Your task to perform on an android device: Open CNN.com Image 0: 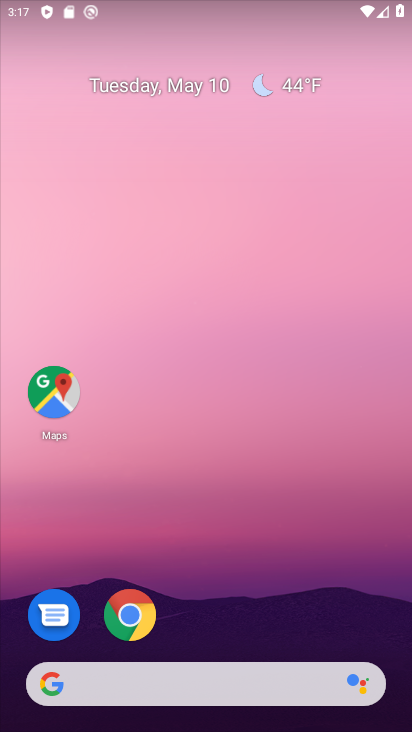
Step 0: click (130, 609)
Your task to perform on an android device: Open CNN.com Image 1: 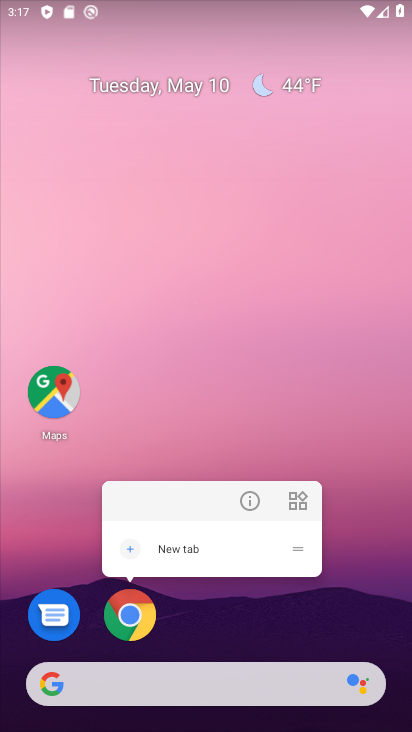
Step 1: click (128, 606)
Your task to perform on an android device: Open CNN.com Image 2: 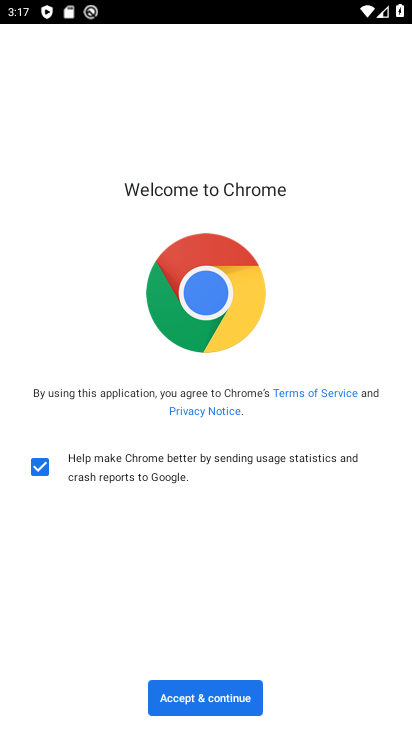
Step 2: click (198, 704)
Your task to perform on an android device: Open CNN.com Image 3: 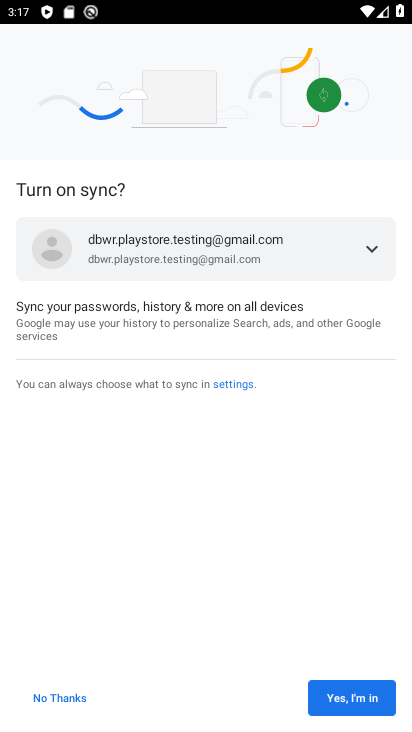
Step 3: click (344, 706)
Your task to perform on an android device: Open CNN.com Image 4: 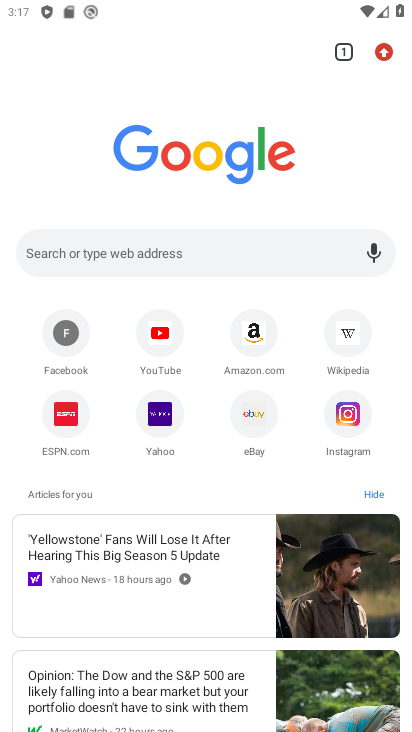
Step 4: click (171, 259)
Your task to perform on an android device: Open CNN.com Image 5: 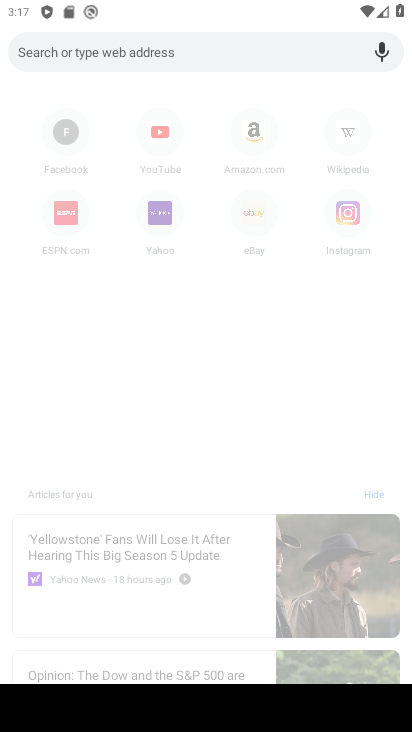
Step 5: type "cnn.com"
Your task to perform on an android device: Open CNN.com Image 6: 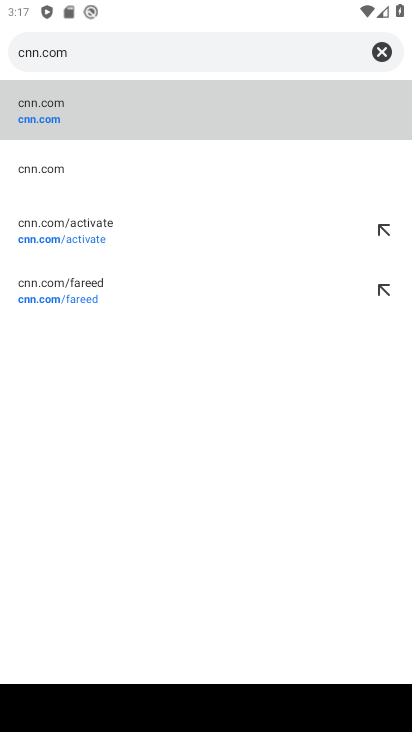
Step 6: click (74, 107)
Your task to perform on an android device: Open CNN.com Image 7: 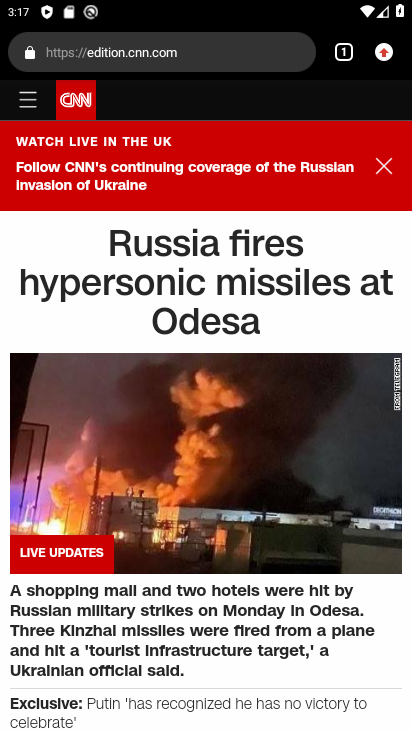
Step 7: task complete